Your task to perform on an android device: Search for a 36" x 48" whiteboard on Home Depot Image 0: 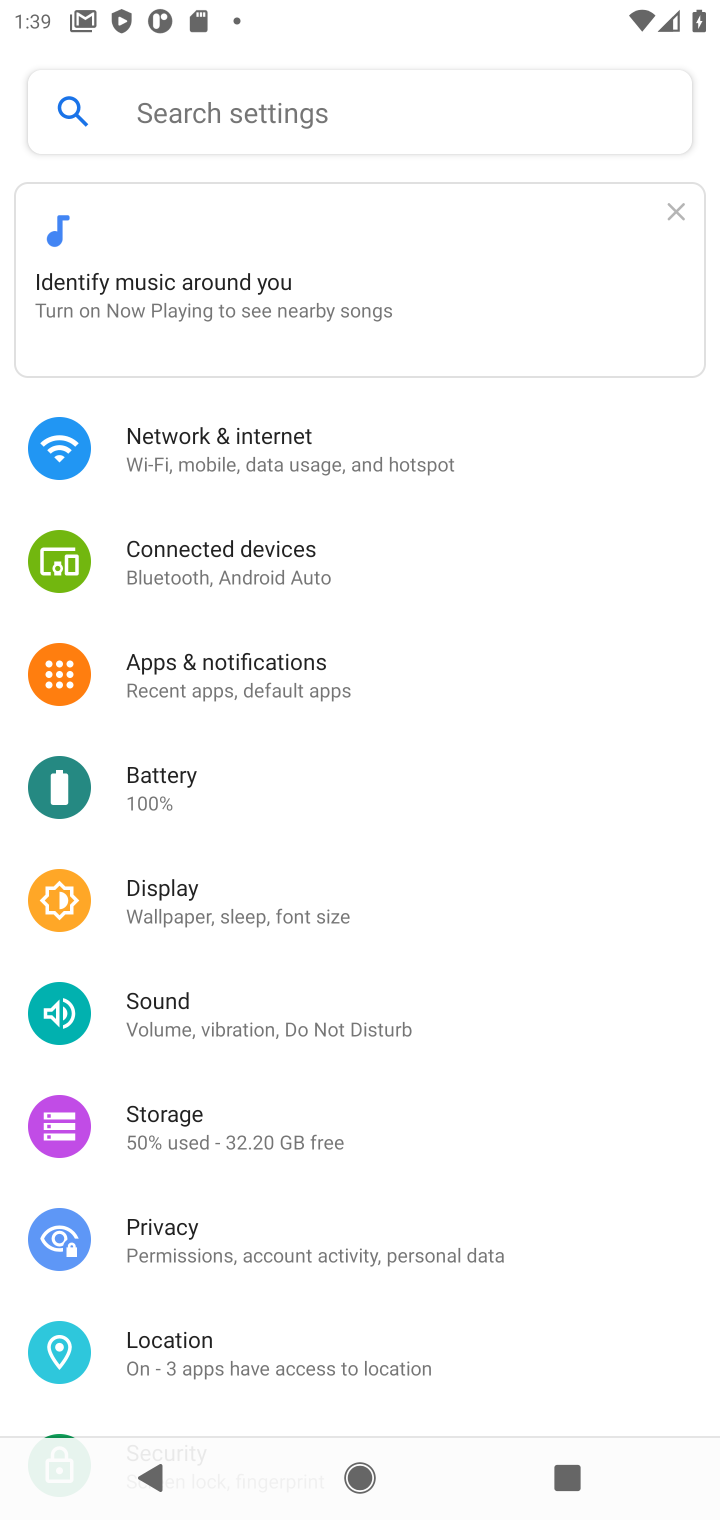
Step 0: press home button
Your task to perform on an android device: Search for a 36" x 48" whiteboard on Home Depot Image 1: 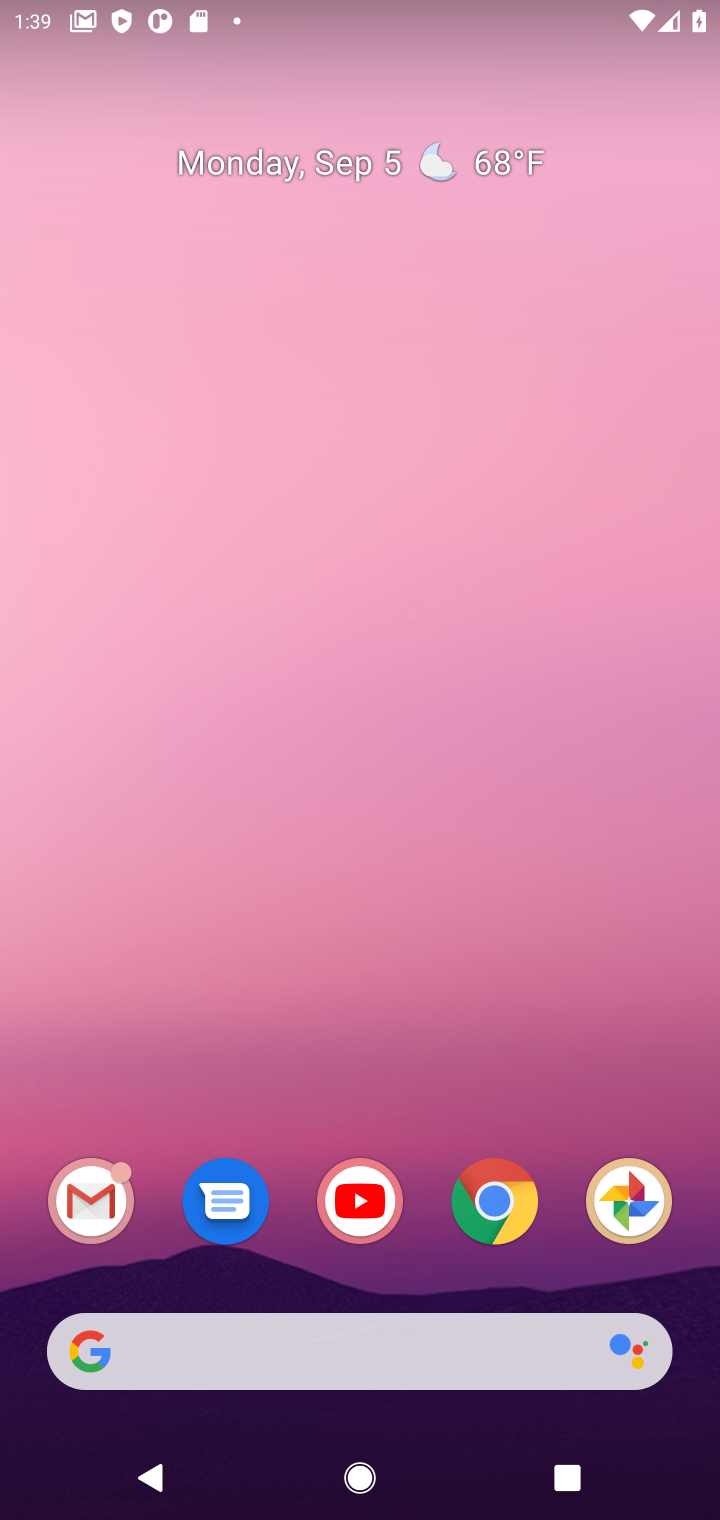
Step 1: click (508, 1209)
Your task to perform on an android device: Search for a 36" x 48" whiteboard on Home Depot Image 2: 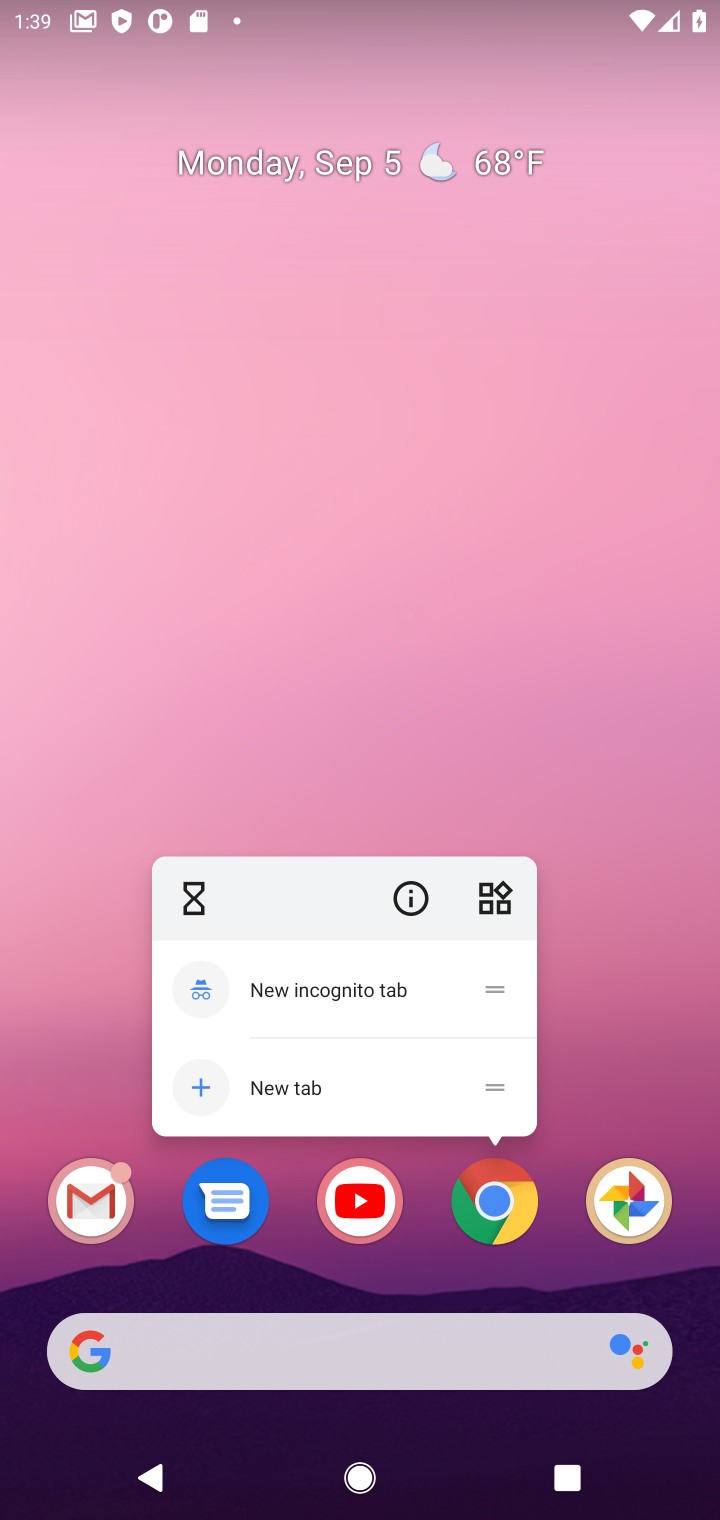
Step 2: click (508, 1211)
Your task to perform on an android device: Search for a 36" x 48" whiteboard on Home Depot Image 3: 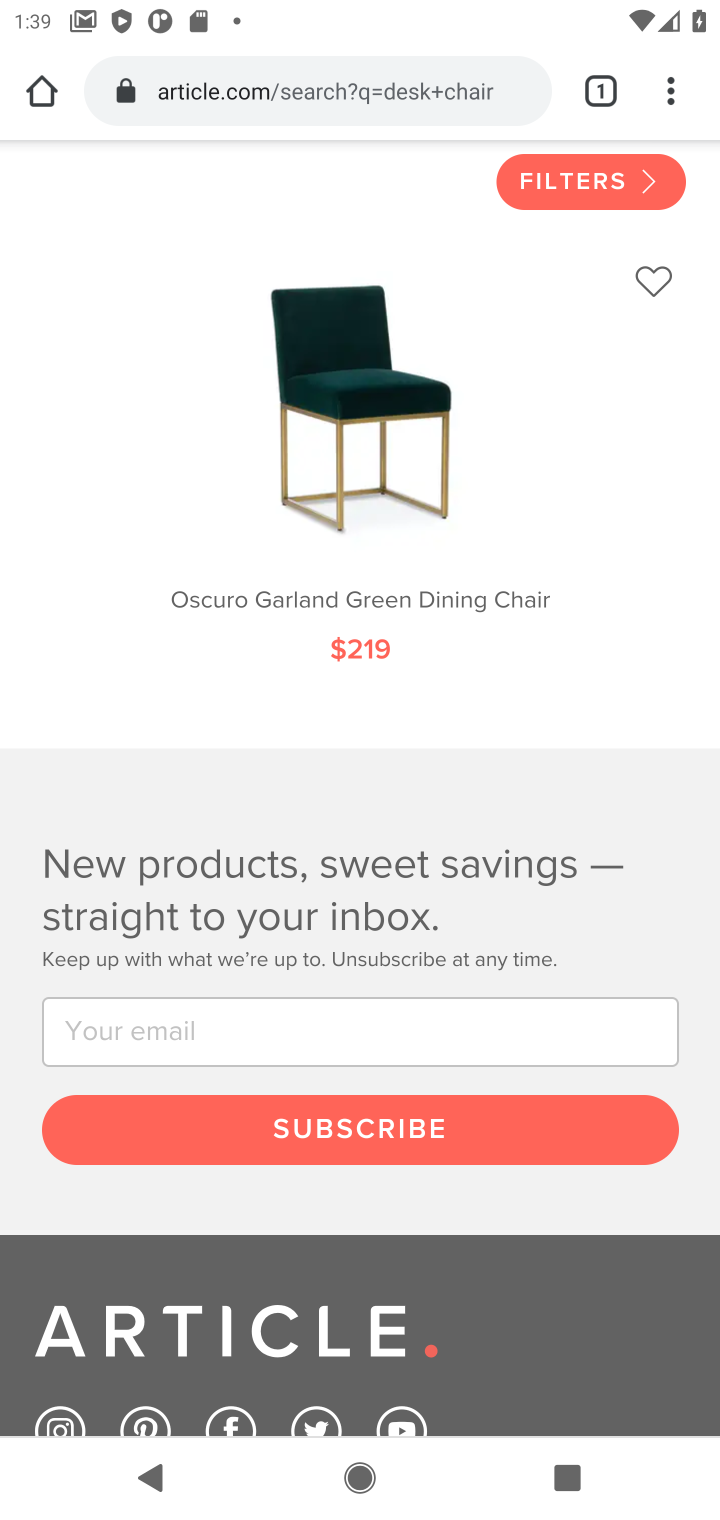
Step 3: click (409, 85)
Your task to perform on an android device: Search for a 36" x 48" whiteboard on Home Depot Image 4: 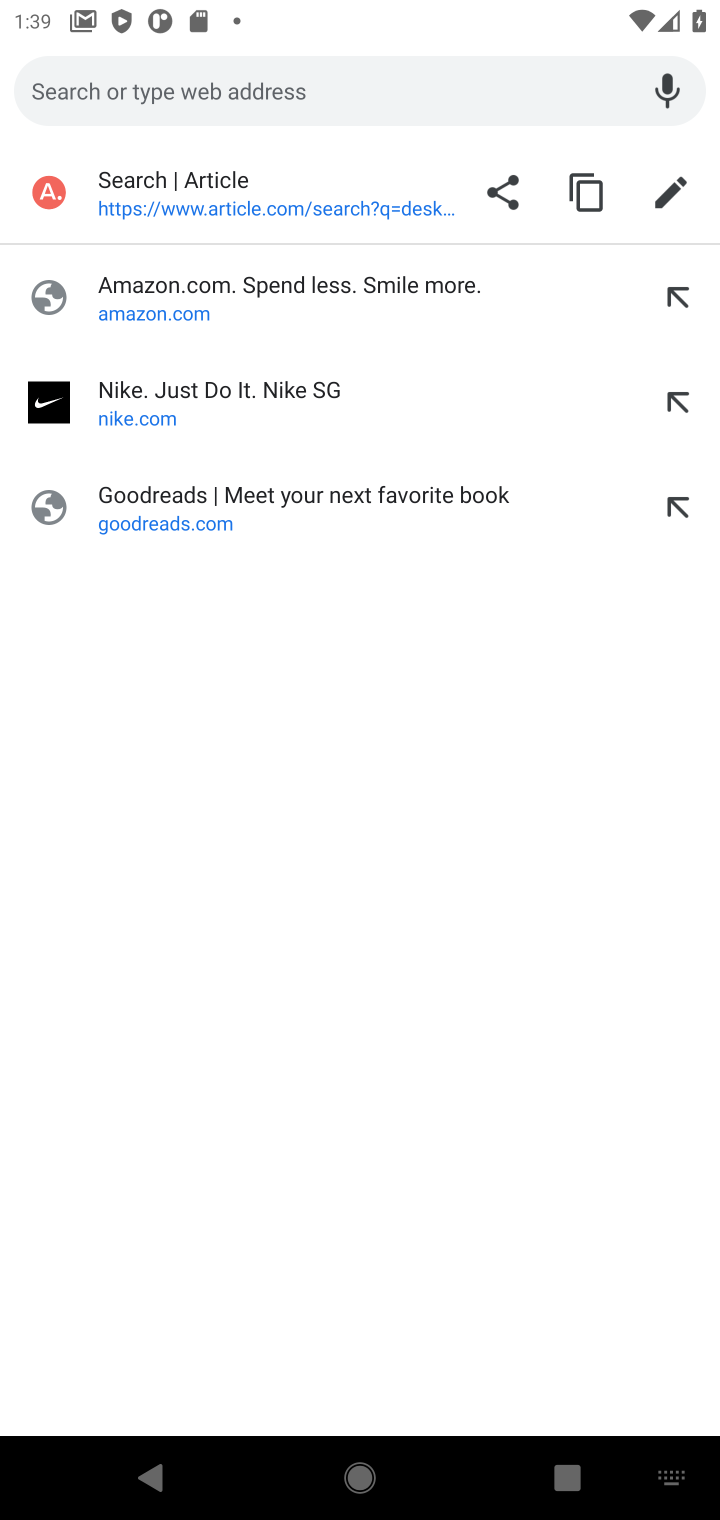
Step 4: type "Home Depot"
Your task to perform on an android device: Search for a 36" x 48" whiteboard on Home Depot Image 5: 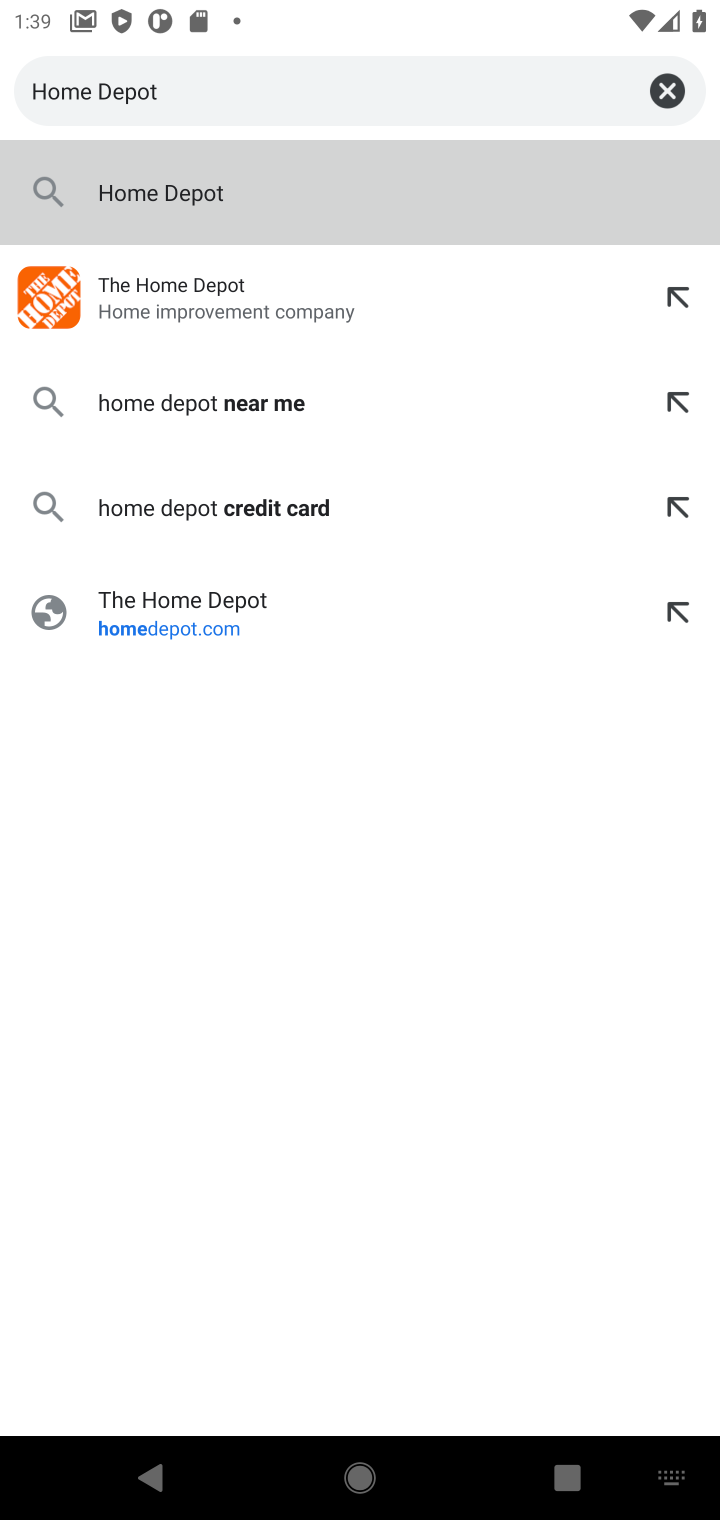
Step 5: press enter
Your task to perform on an android device: Search for a 36" x 48" whiteboard on Home Depot Image 6: 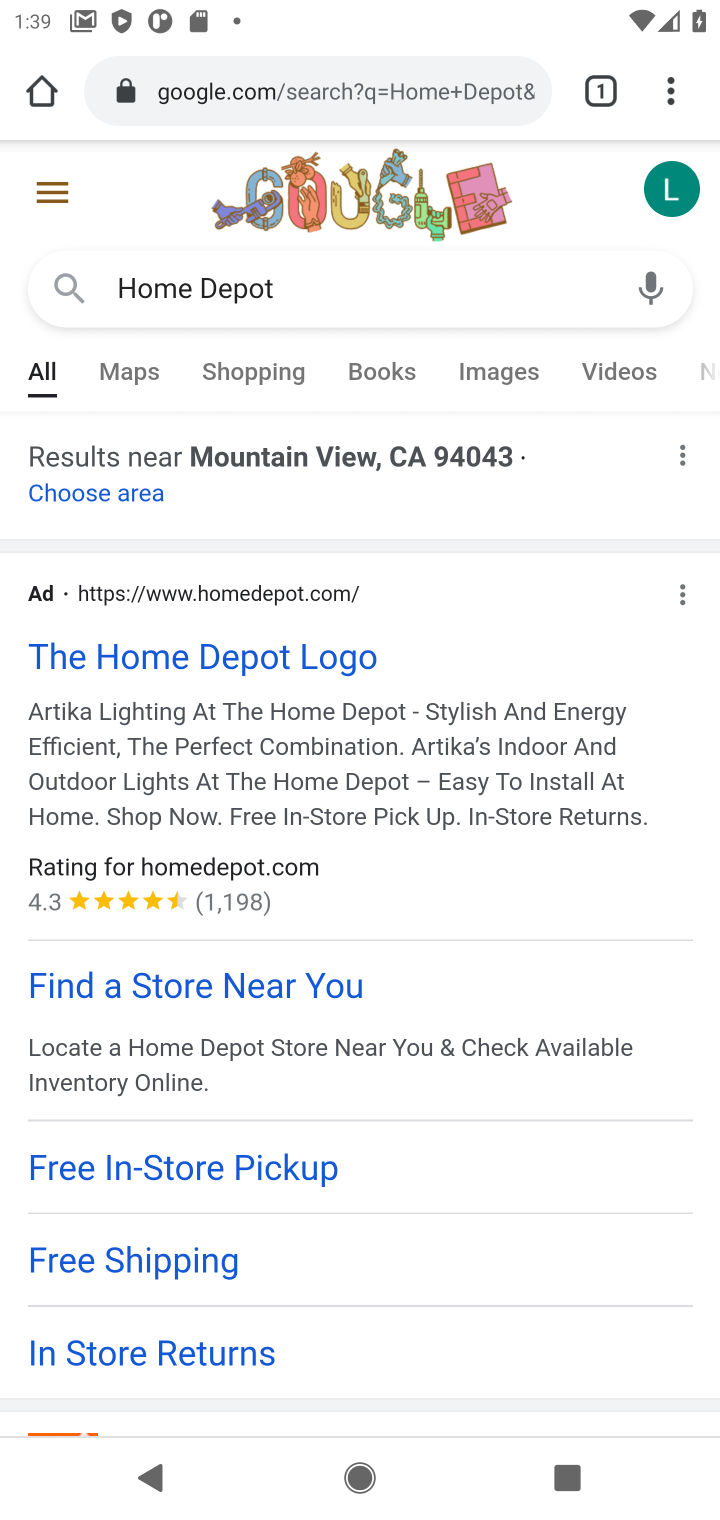
Step 6: click (225, 661)
Your task to perform on an android device: Search for a 36" x 48" whiteboard on Home Depot Image 7: 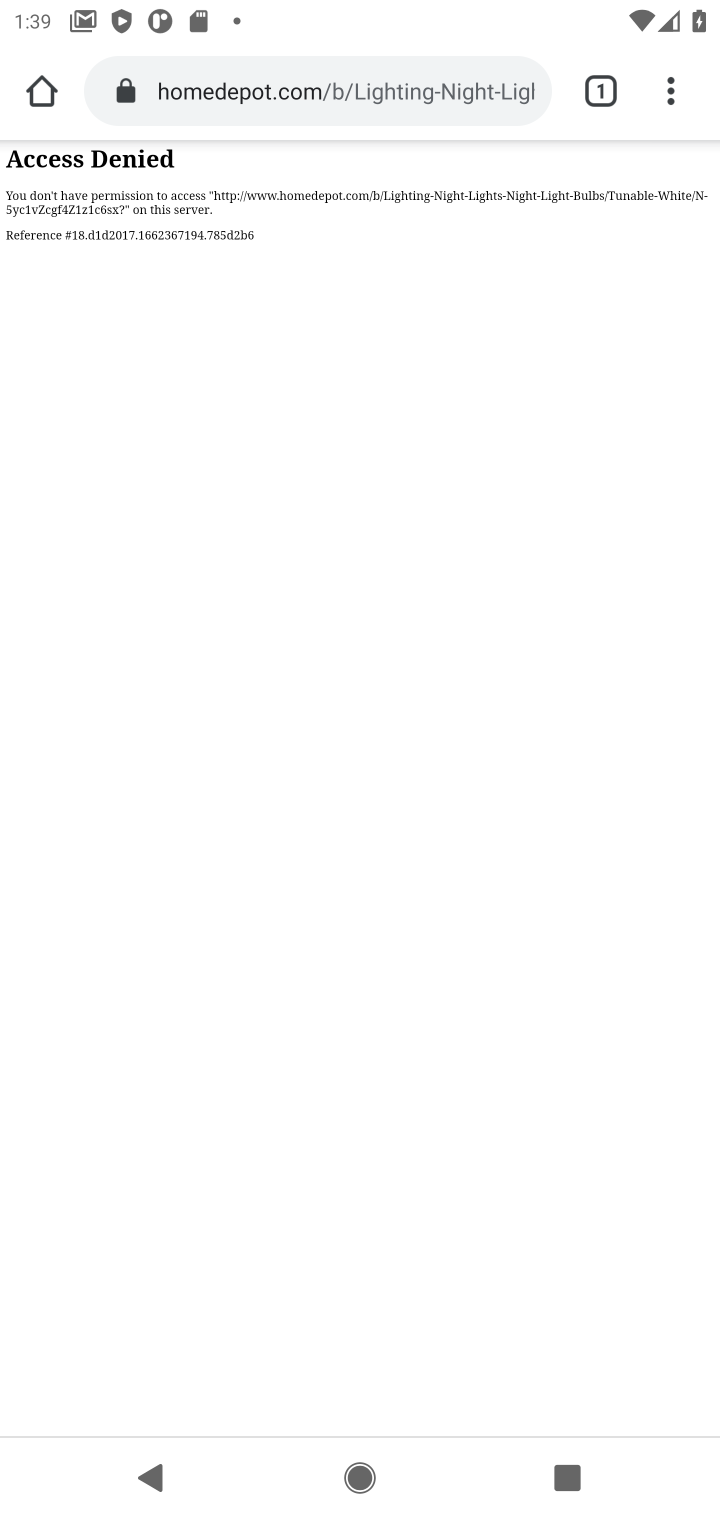
Step 7: task complete